Your task to perform on an android device: change notification settings in the gmail app Image 0: 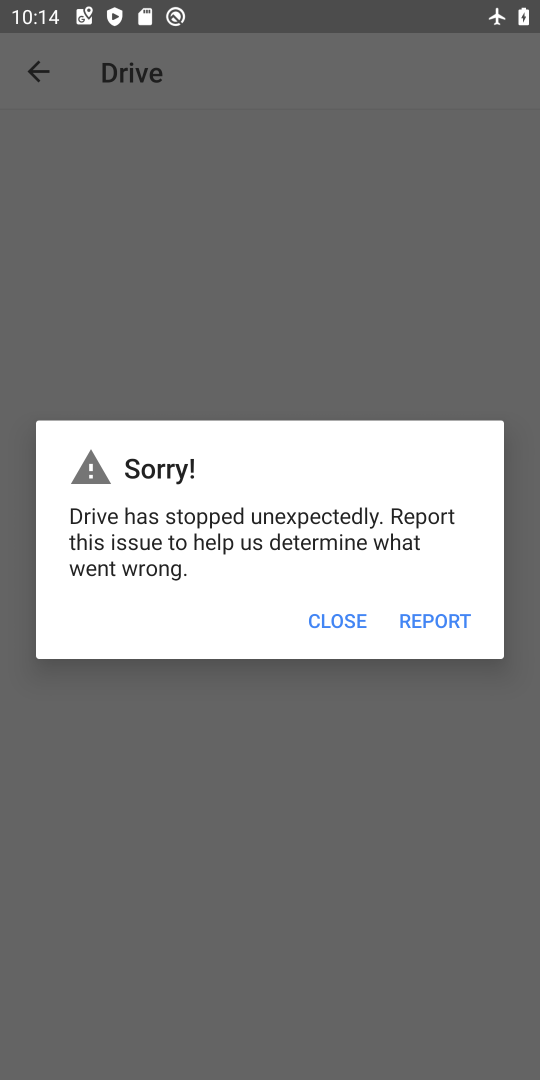
Step 0: press home button
Your task to perform on an android device: change notification settings in the gmail app Image 1: 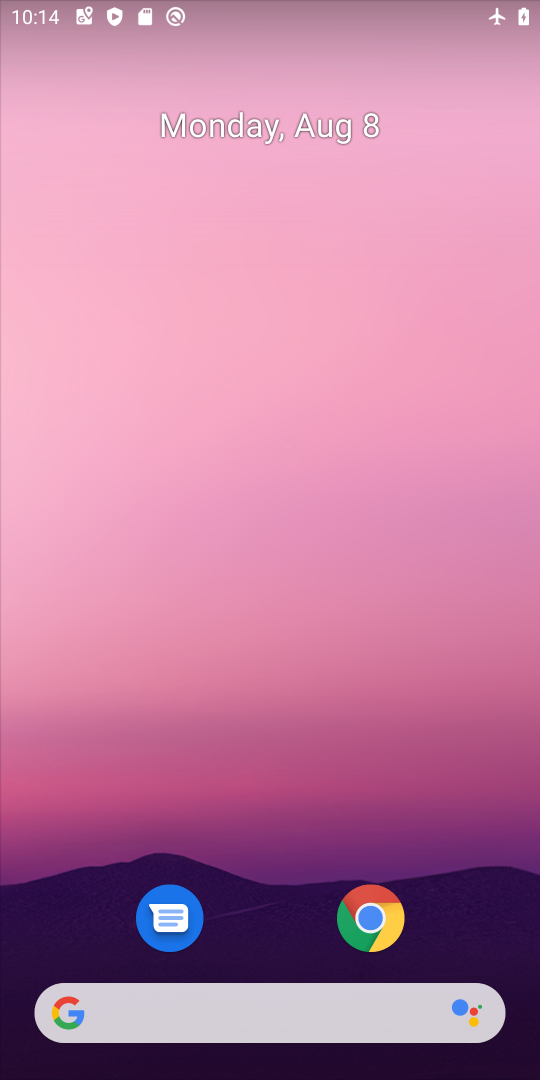
Step 1: drag from (225, 962) to (214, 101)
Your task to perform on an android device: change notification settings in the gmail app Image 2: 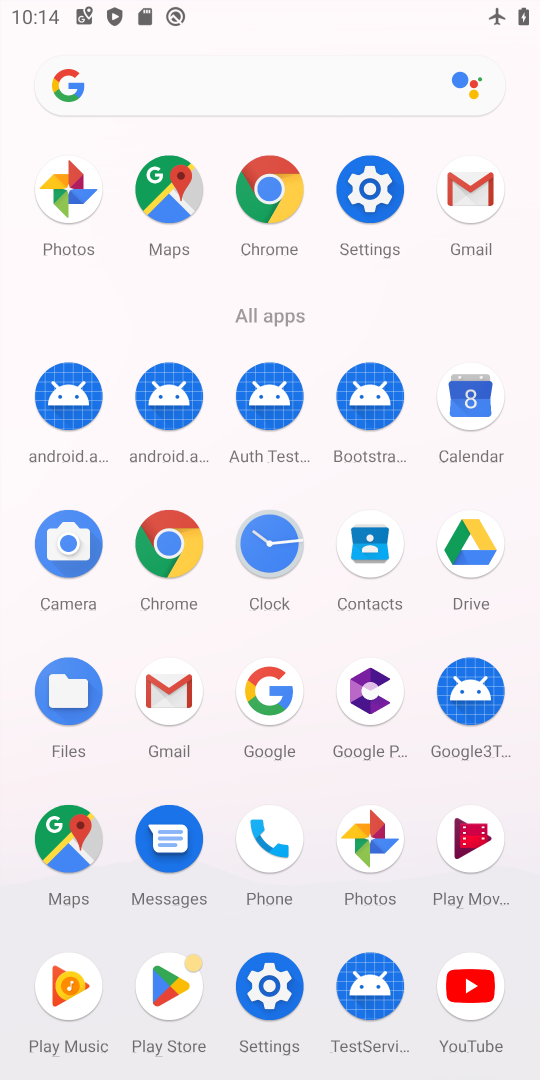
Step 2: click (155, 671)
Your task to perform on an android device: change notification settings in the gmail app Image 3: 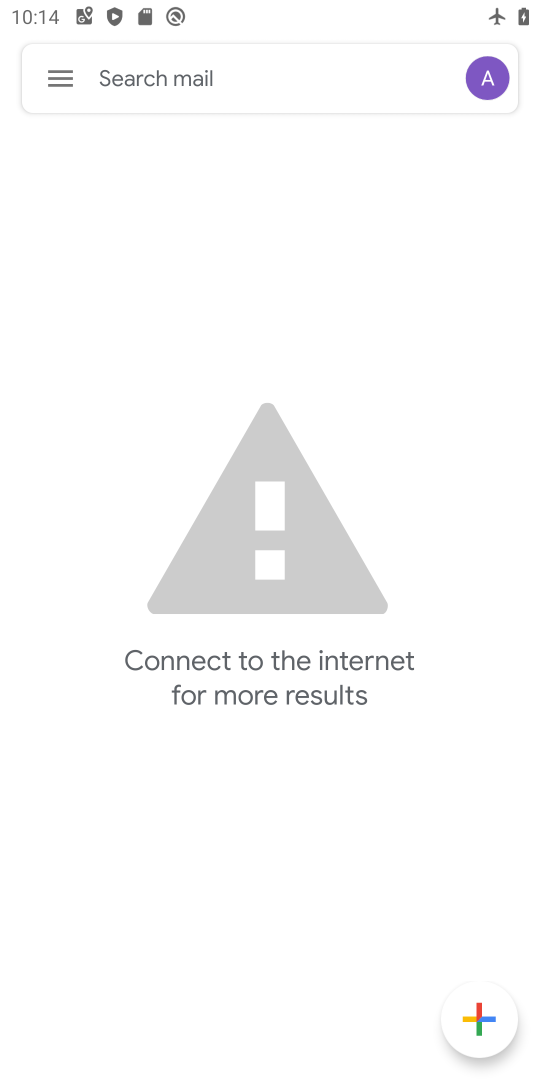
Step 3: click (57, 69)
Your task to perform on an android device: change notification settings in the gmail app Image 4: 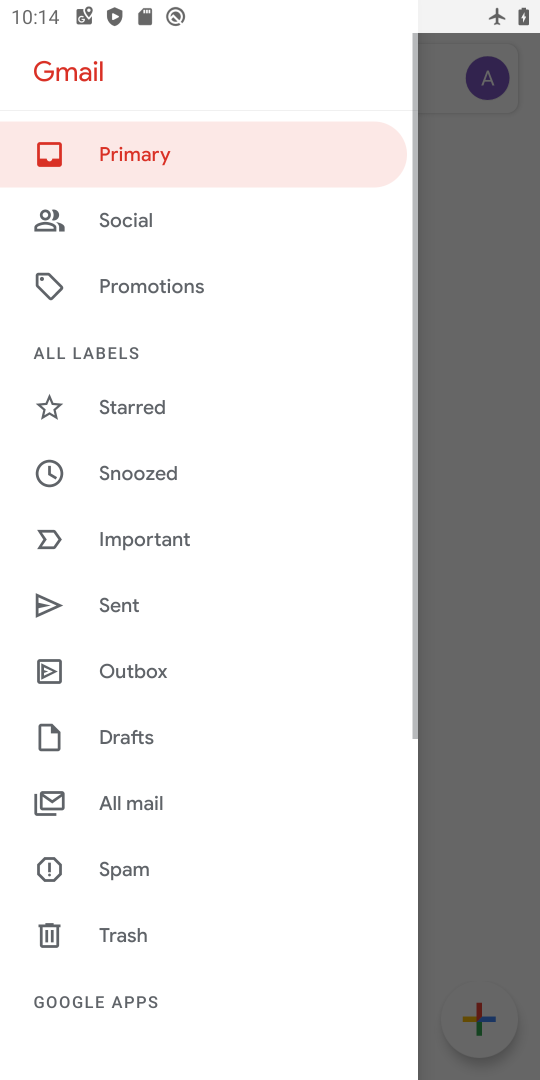
Step 4: drag from (221, 878) to (210, 138)
Your task to perform on an android device: change notification settings in the gmail app Image 5: 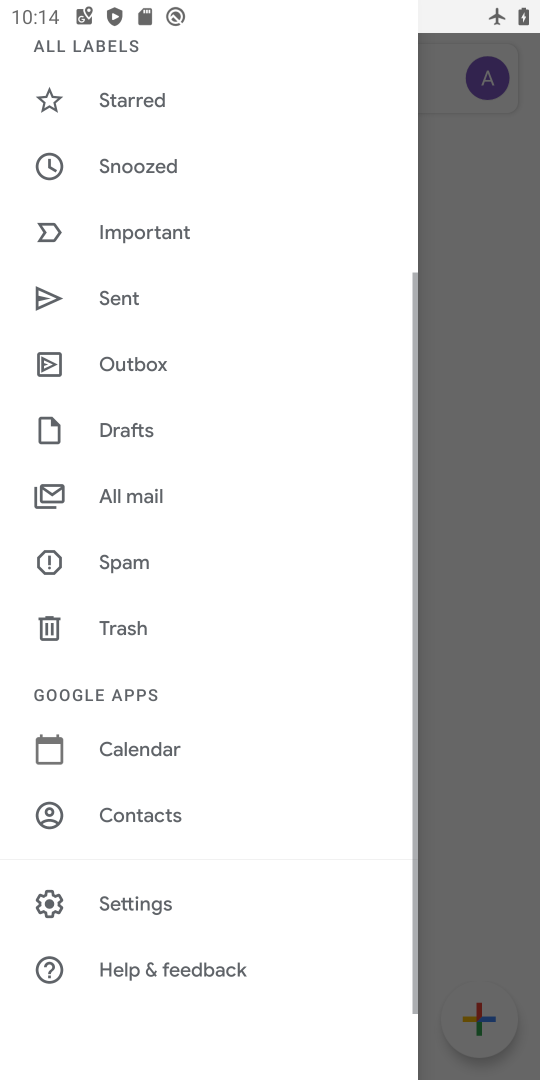
Step 5: click (164, 894)
Your task to perform on an android device: change notification settings in the gmail app Image 6: 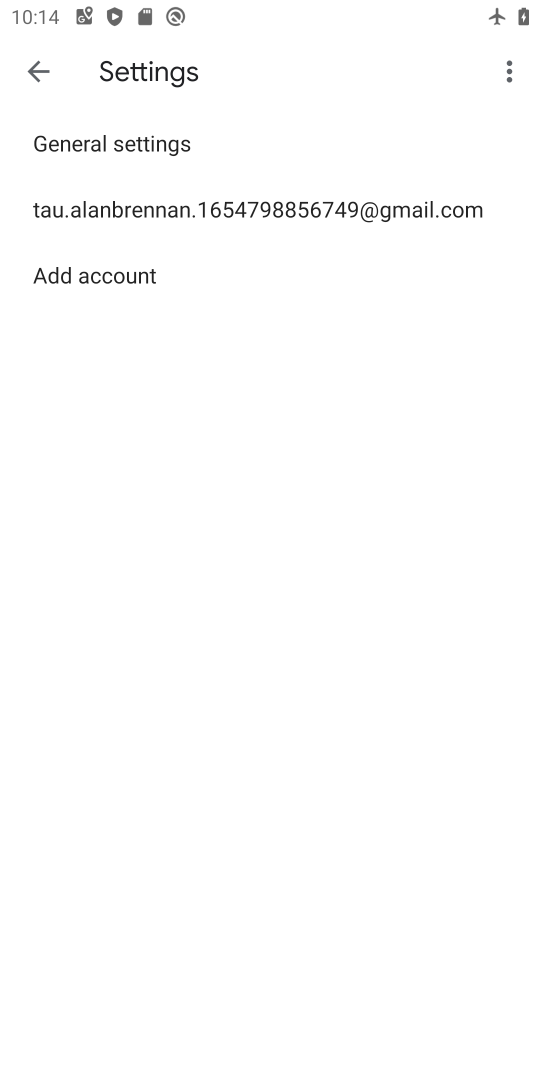
Step 6: click (92, 159)
Your task to perform on an android device: change notification settings in the gmail app Image 7: 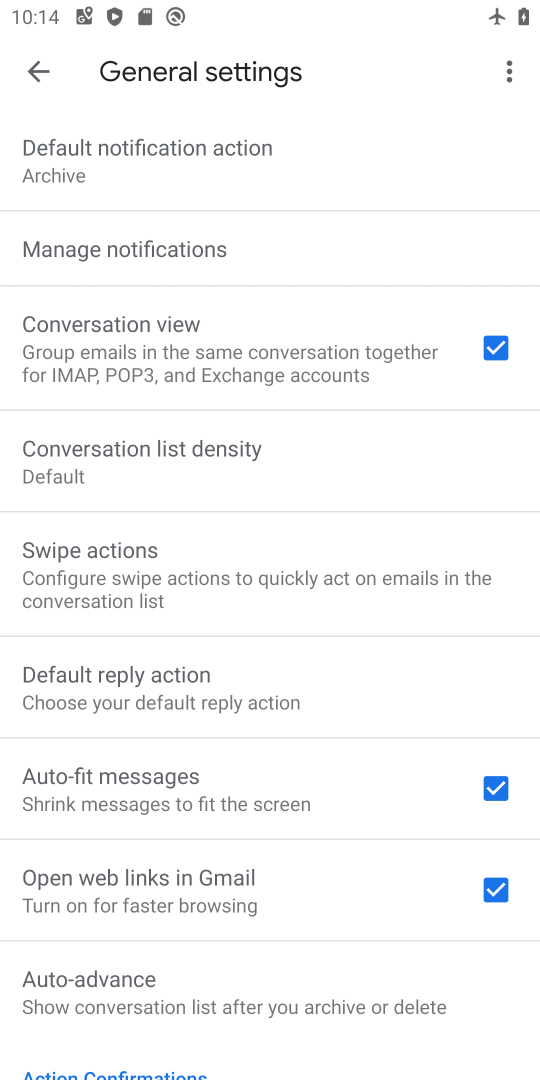
Step 7: click (153, 268)
Your task to perform on an android device: change notification settings in the gmail app Image 8: 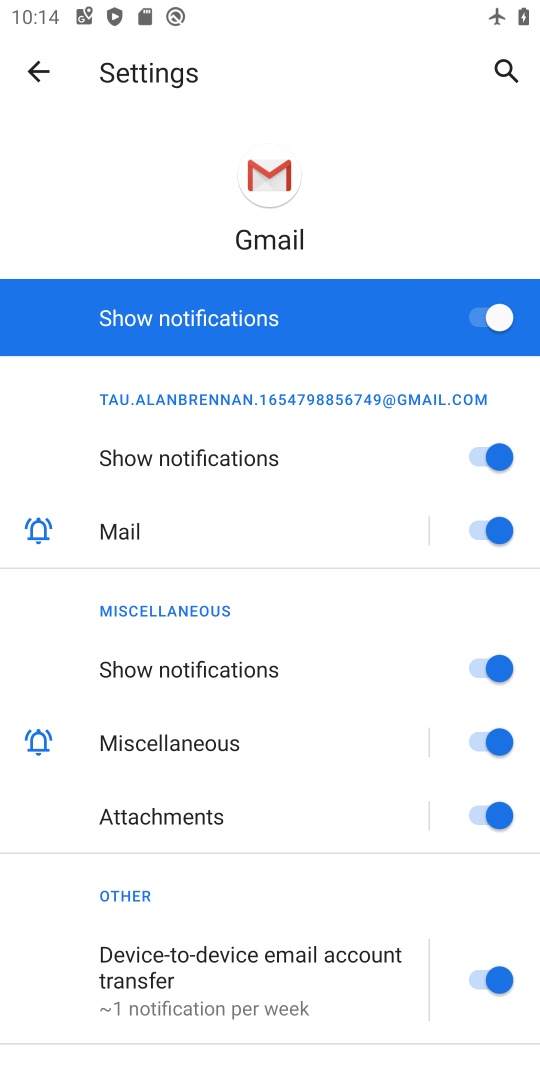
Step 8: click (492, 298)
Your task to perform on an android device: change notification settings in the gmail app Image 9: 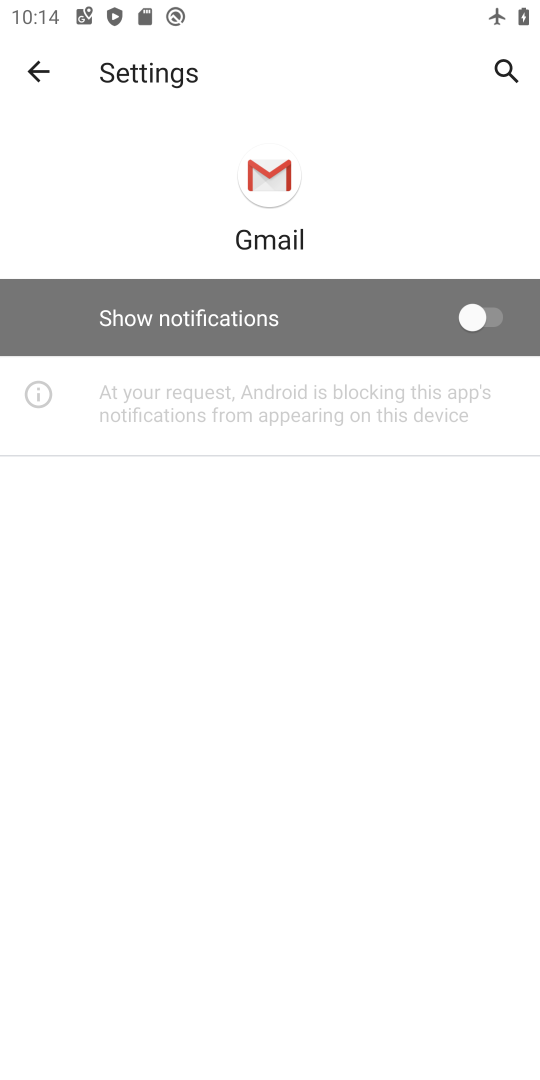
Step 9: task complete